Your task to perform on an android device: set the stopwatch Image 0: 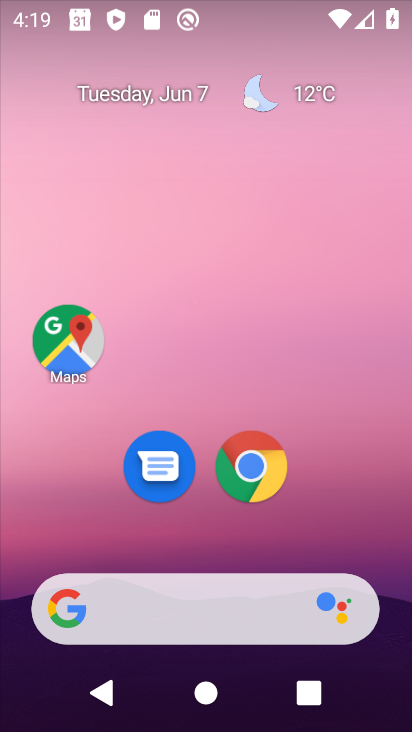
Step 0: drag from (388, 536) to (331, 236)
Your task to perform on an android device: set the stopwatch Image 1: 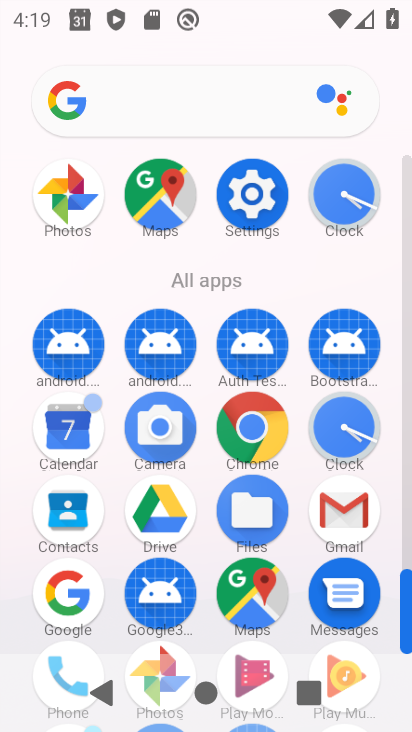
Step 1: click (359, 216)
Your task to perform on an android device: set the stopwatch Image 2: 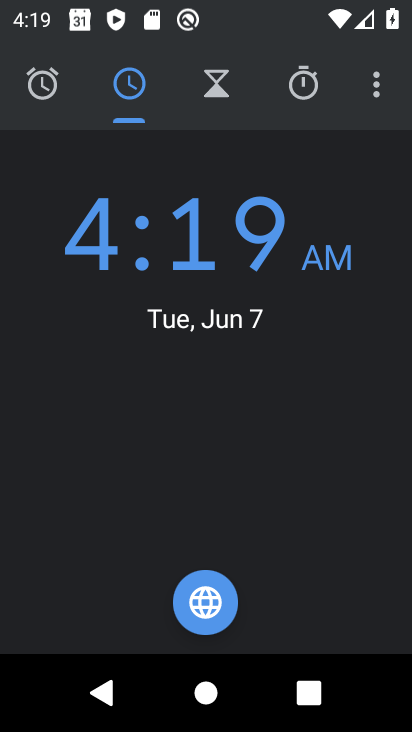
Step 2: click (310, 103)
Your task to perform on an android device: set the stopwatch Image 3: 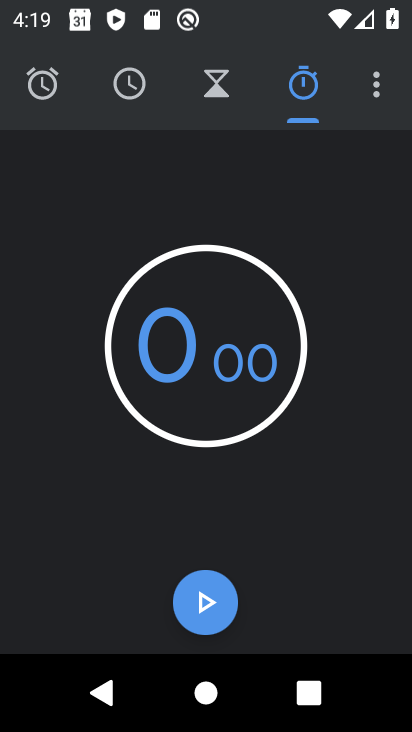
Step 3: click (201, 609)
Your task to perform on an android device: set the stopwatch Image 4: 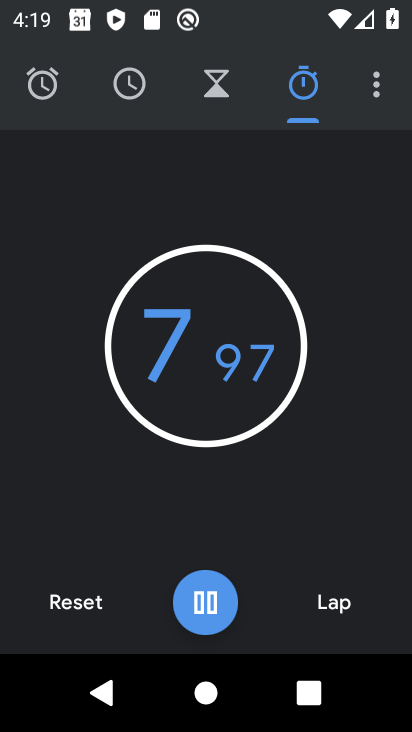
Step 4: task complete